Your task to perform on an android device: Go to settings Image 0: 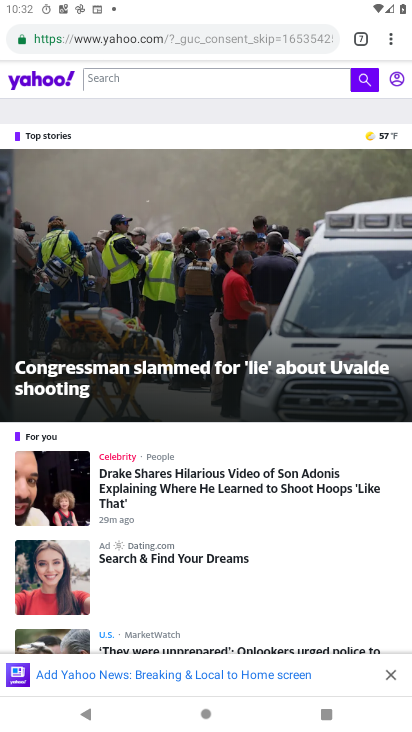
Step 0: press home button
Your task to perform on an android device: Go to settings Image 1: 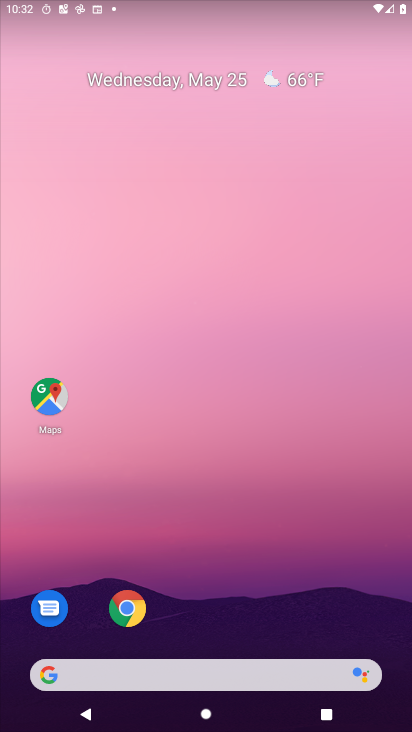
Step 1: drag from (225, 726) to (221, 7)
Your task to perform on an android device: Go to settings Image 2: 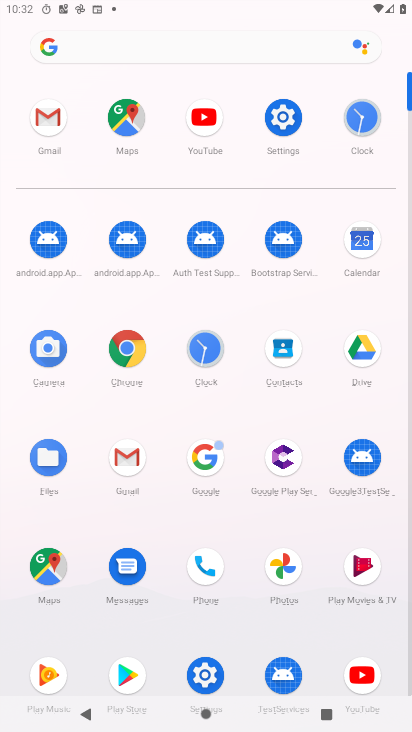
Step 2: click (286, 125)
Your task to perform on an android device: Go to settings Image 3: 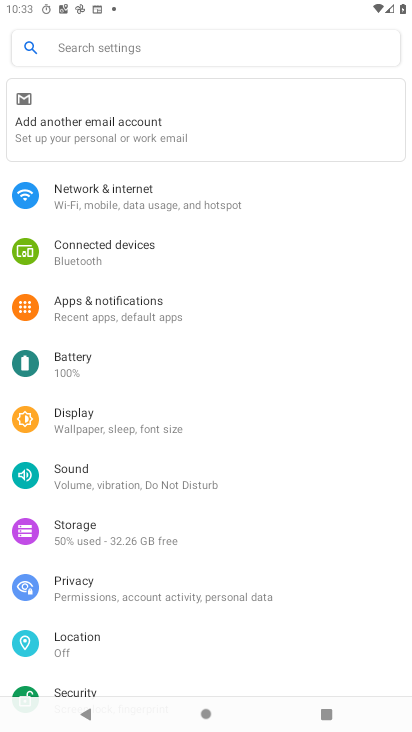
Step 3: task complete